Your task to perform on an android device: Open maps Image 0: 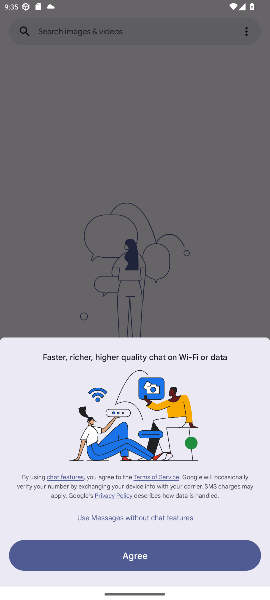
Step 0: press home button
Your task to perform on an android device: Open maps Image 1: 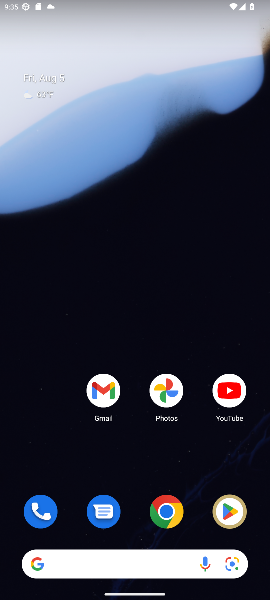
Step 1: drag from (151, 562) to (150, 319)
Your task to perform on an android device: Open maps Image 2: 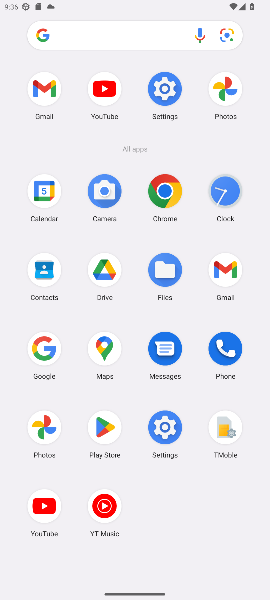
Step 2: click (103, 349)
Your task to perform on an android device: Open maps Image 3: 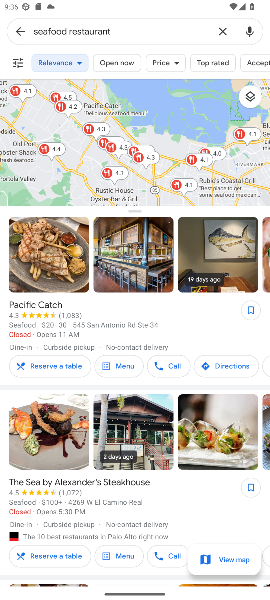
Step 3: click (223, 31)
Your task to perform on an android device: Open maps Image 4: 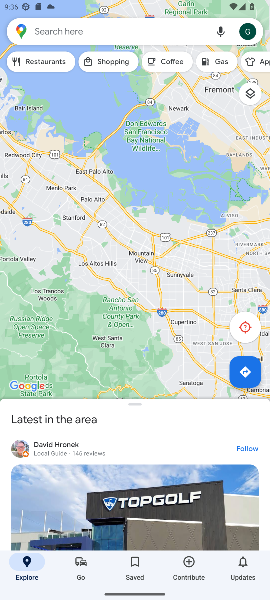
Step 4: task complete